Your task to perform on an android device: Open Google Maps Image 0: 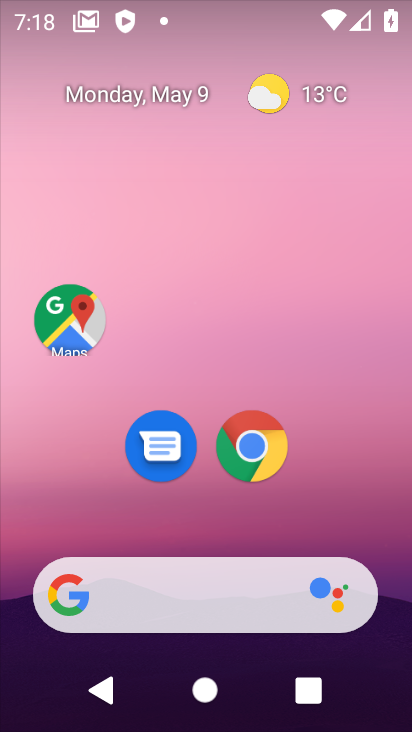
Step 0: click (52, 323)
Your task to perform on an android device: Open Google Maps Image 1: 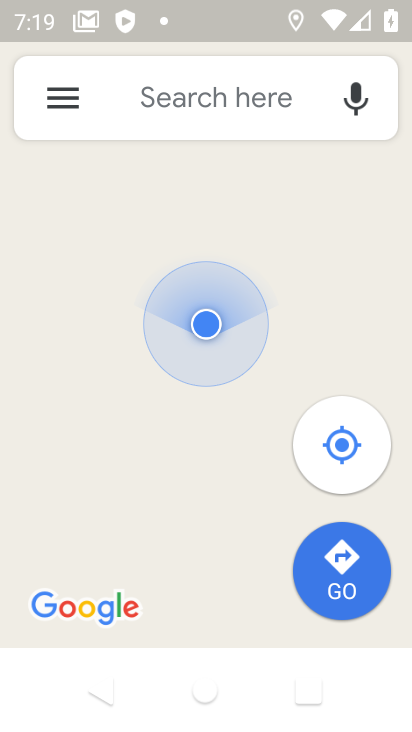
Step 1: task complete